Your task to perform on an android device: Go to Wikipedia Image 0: 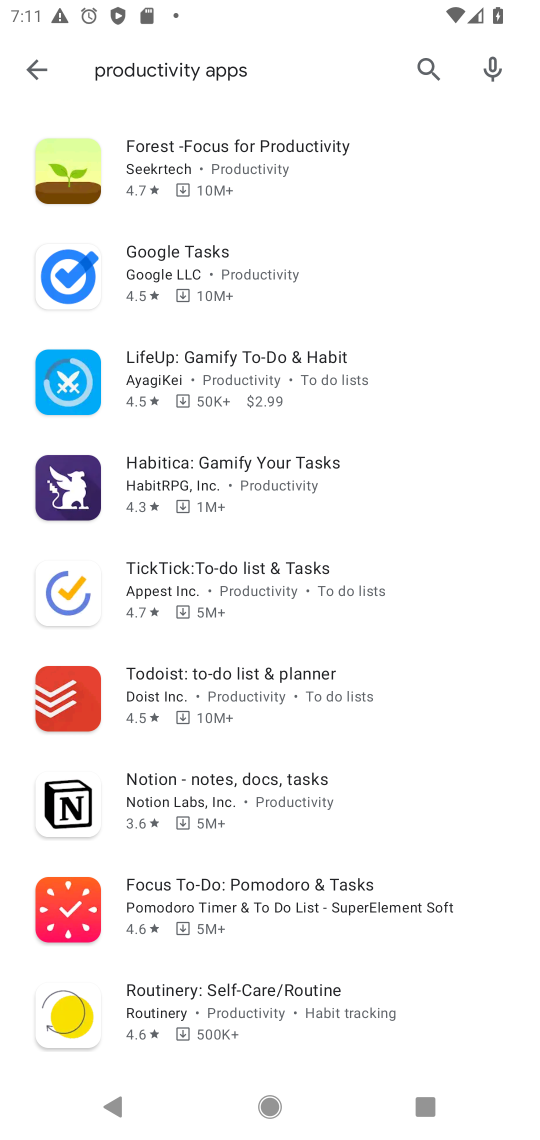
Step 0: press home button
Your task to perform on an android device: Go to Wikipedia Image 1: 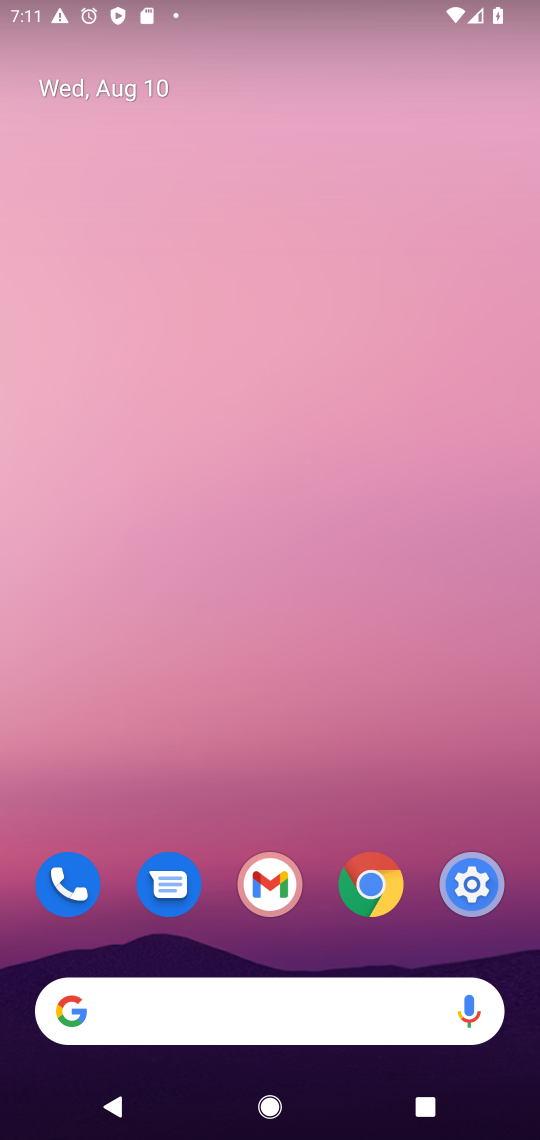
Step 1: click (163, 1016)
Your task to perform on an android device: Go to Wikipedia Image 2: 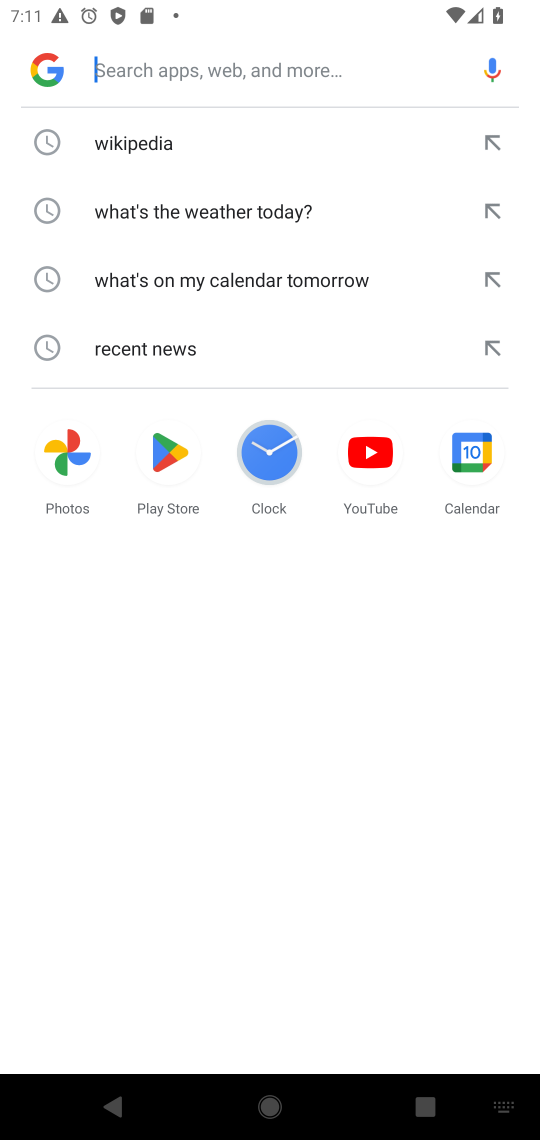
Step 2: click (137, 144)
Your task to perform on an android device: Go to Wikipedia Image 3: 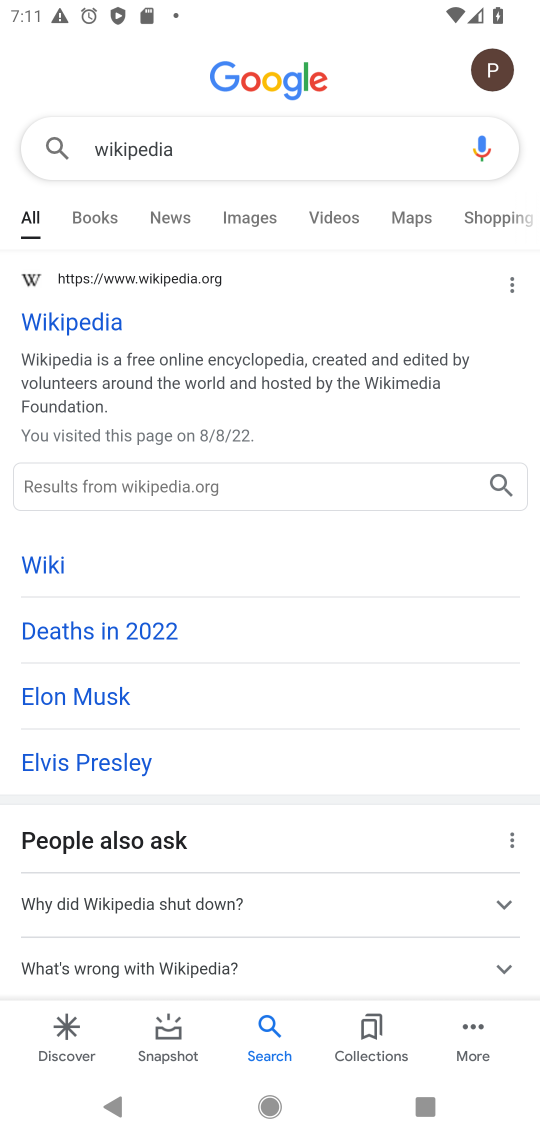
Step 3: task complete